Your task to perform on an android device: toggle notification dots Image 0: 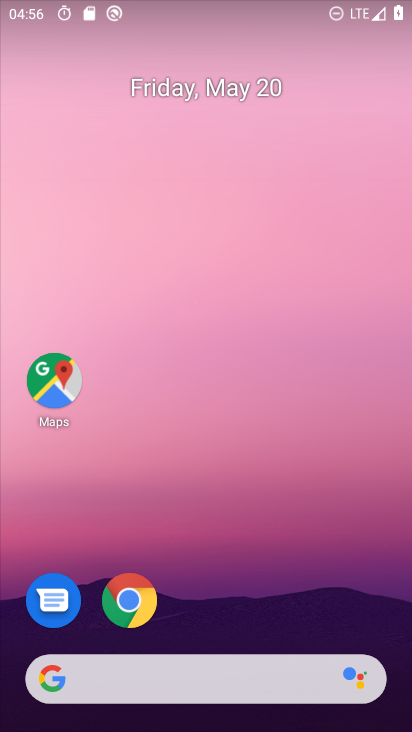
Step 0: drag from (258, 612) to (321, 33)
Your task to perform on an android device: toggle notification dots Image 1: 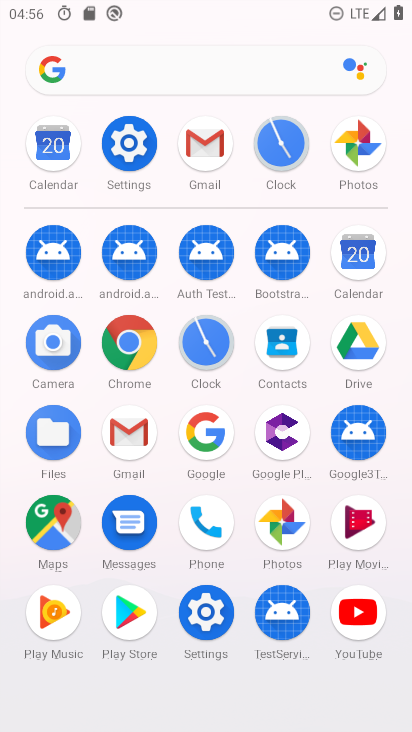
Step 1: click (124, 140)
Your task to perform on an android device: toggle notification dots Image 2: 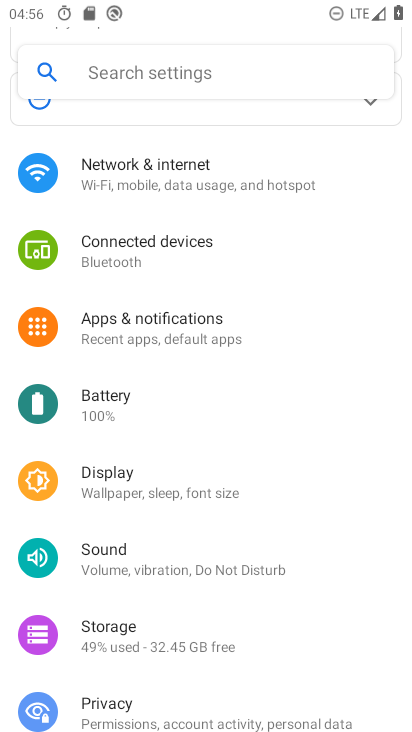
Step 2: click (165, 339)
Your task to perform on an android device: toggle notification dots Image 3: 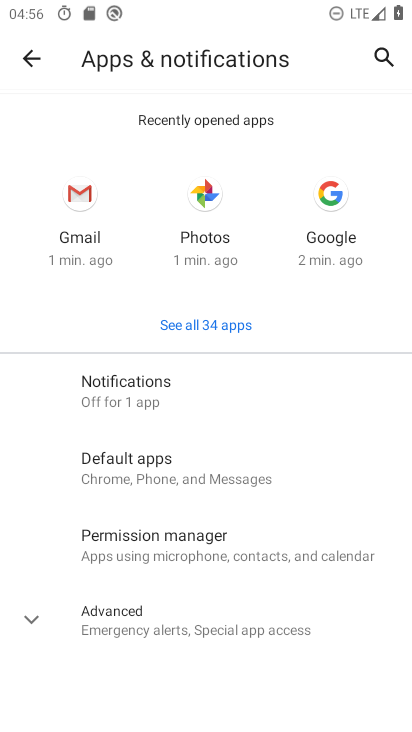
Step 3: click (147, 382)
Your task to perform on an android device: toggle notification dots Image 4: 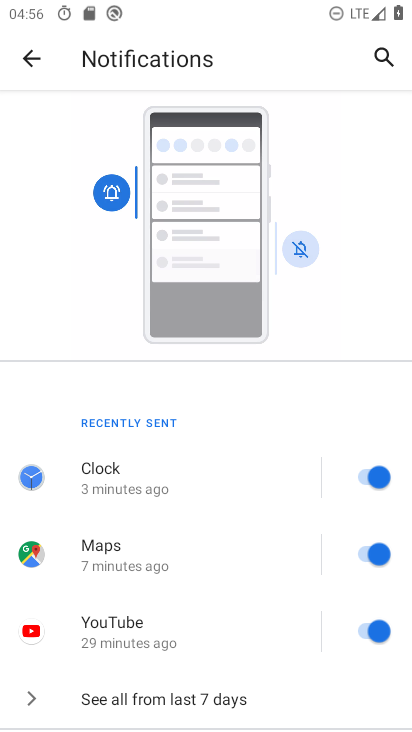
Step 4: drag from (150, 652) to (263, 34)
Your task to perform on an android device: toggle notification dots Image 5: 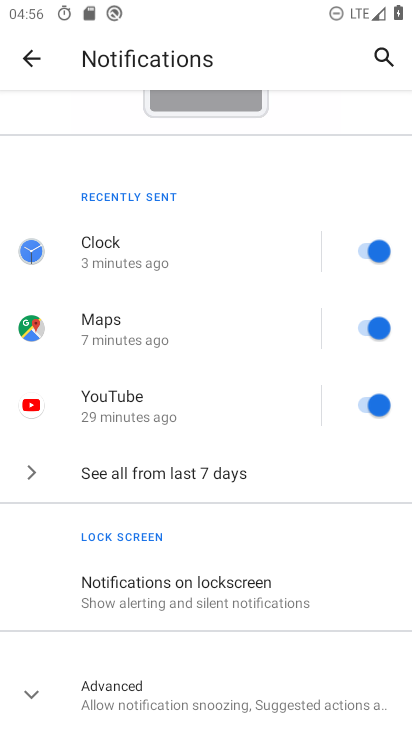
Step 5: click (224, 690)
Your task to perform on an android device: toggle notification dots Image 6: 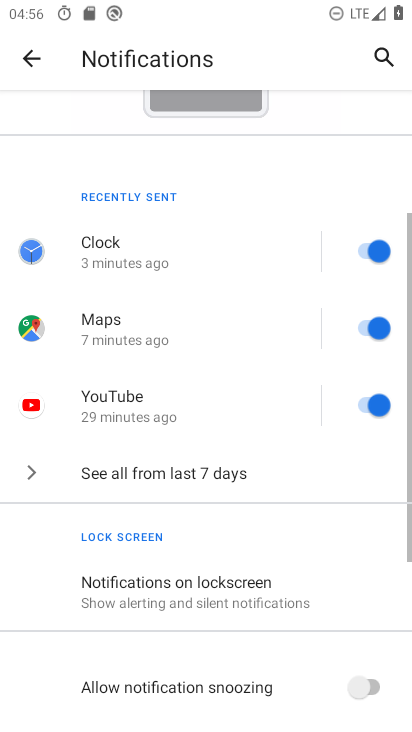
Step 6: drag from (212, 667) to (280, 212)
Your task to perform on an android device: toggle notification dots Image 7: 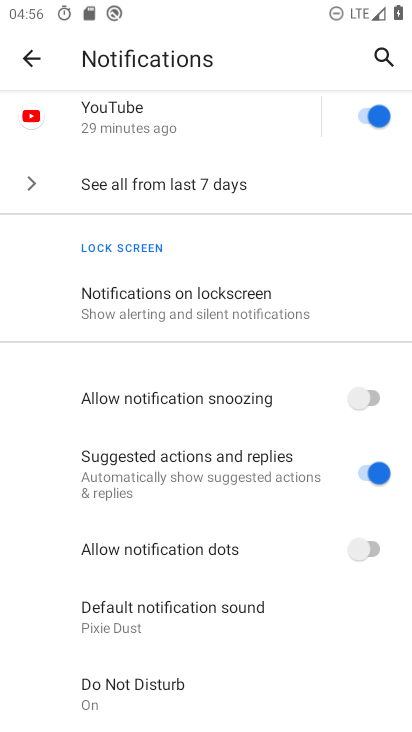
Step 7: click (365, 544)
Your task to perform on an android device: toggle notification dots Image 8: 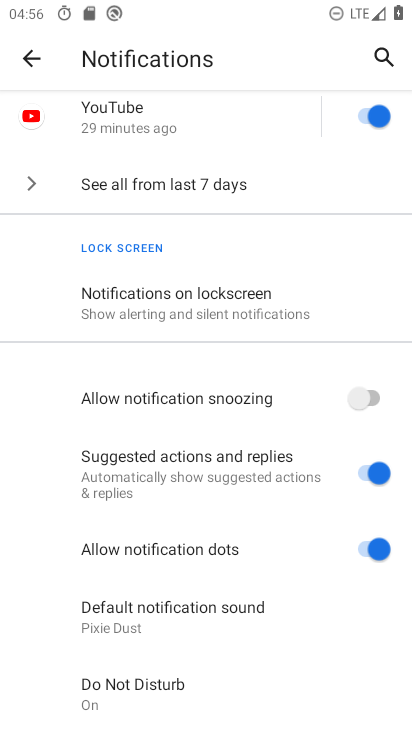
Step 8: task complete